Your task to perform on an android device: Search for "macbook" on walmart.com, select the first entry, add it to the cart, then select checkout. Image 0: 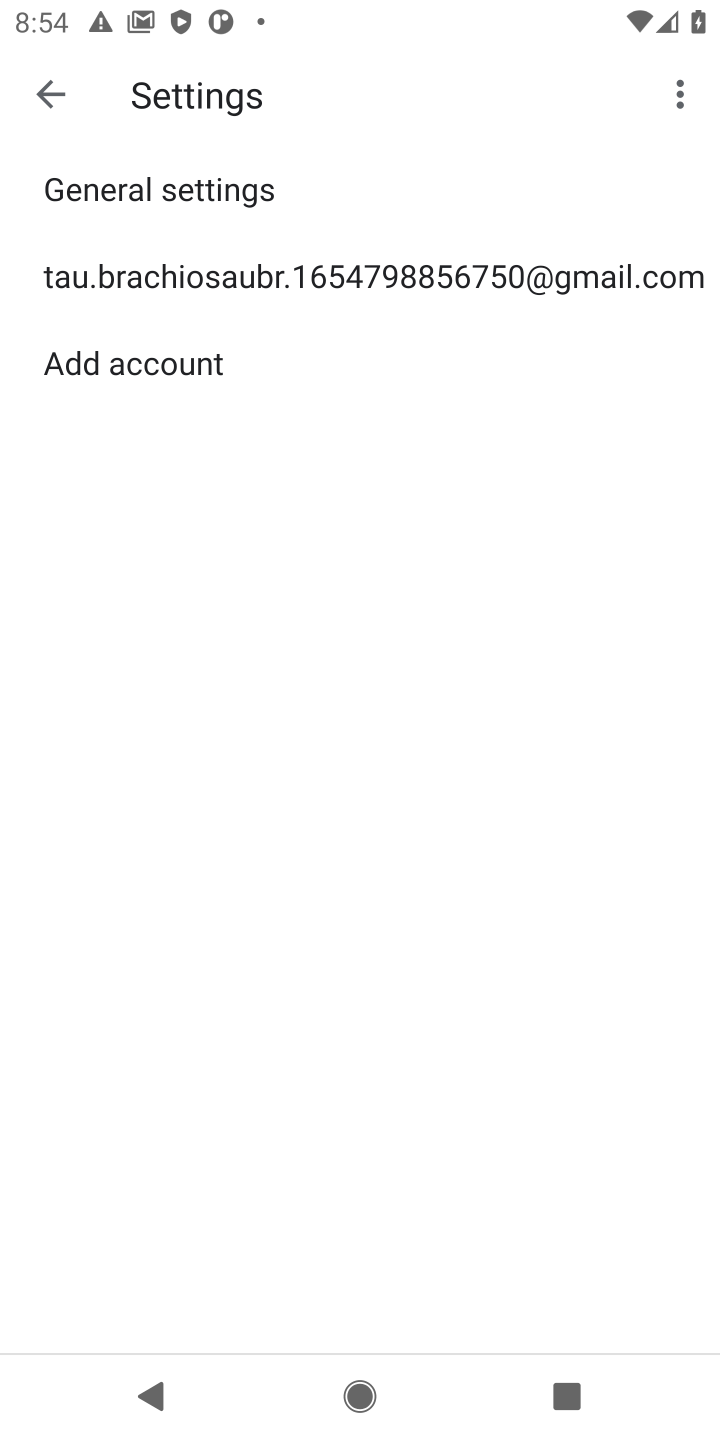
Step 0: press home button
Your task to perform on an android device: Search for "macbook" on walmart.com, select the first entry, add it to the cart, then select checkout. Image 1: 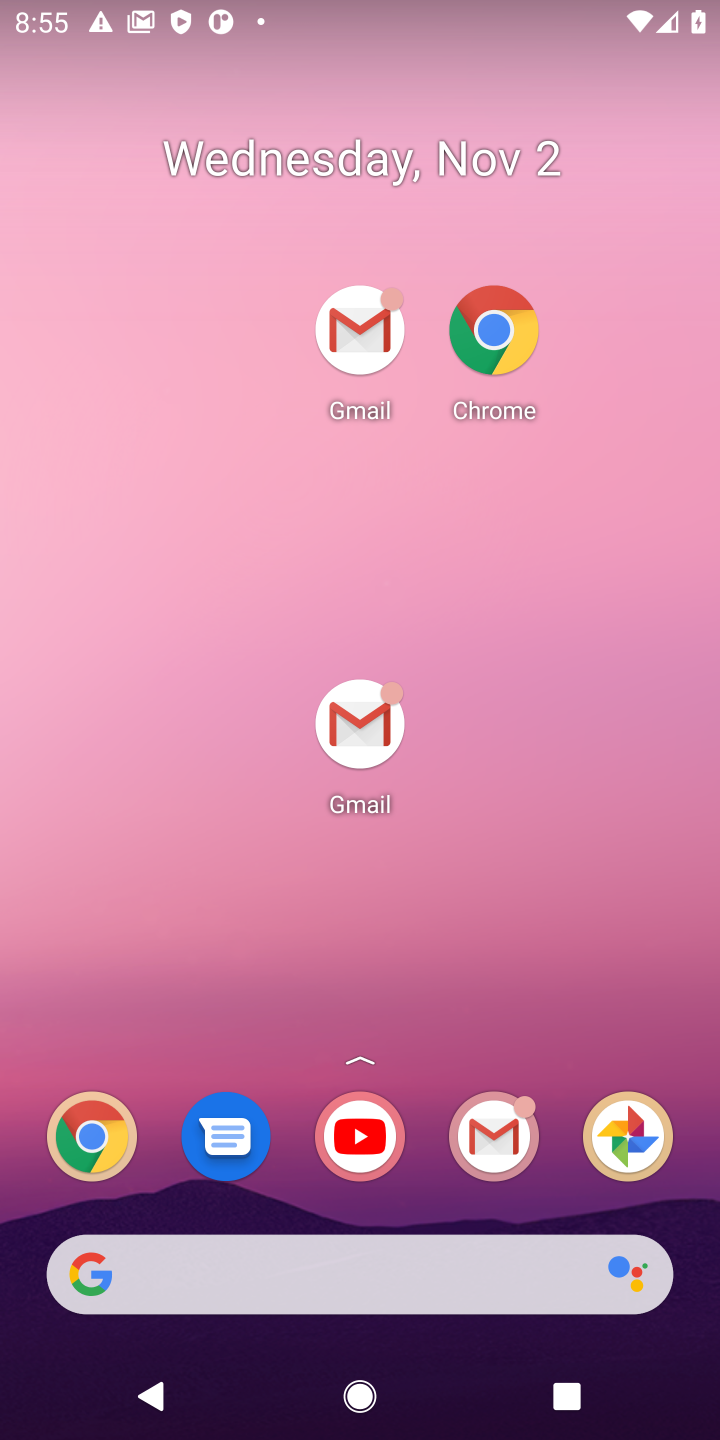
Step 1: drag from (323, 1093) to (342, 136)
Your task to perform on an android device: Search for "macbook" on walmart.com, select the first entry, add it to the cart, then select checkout. Image 2: 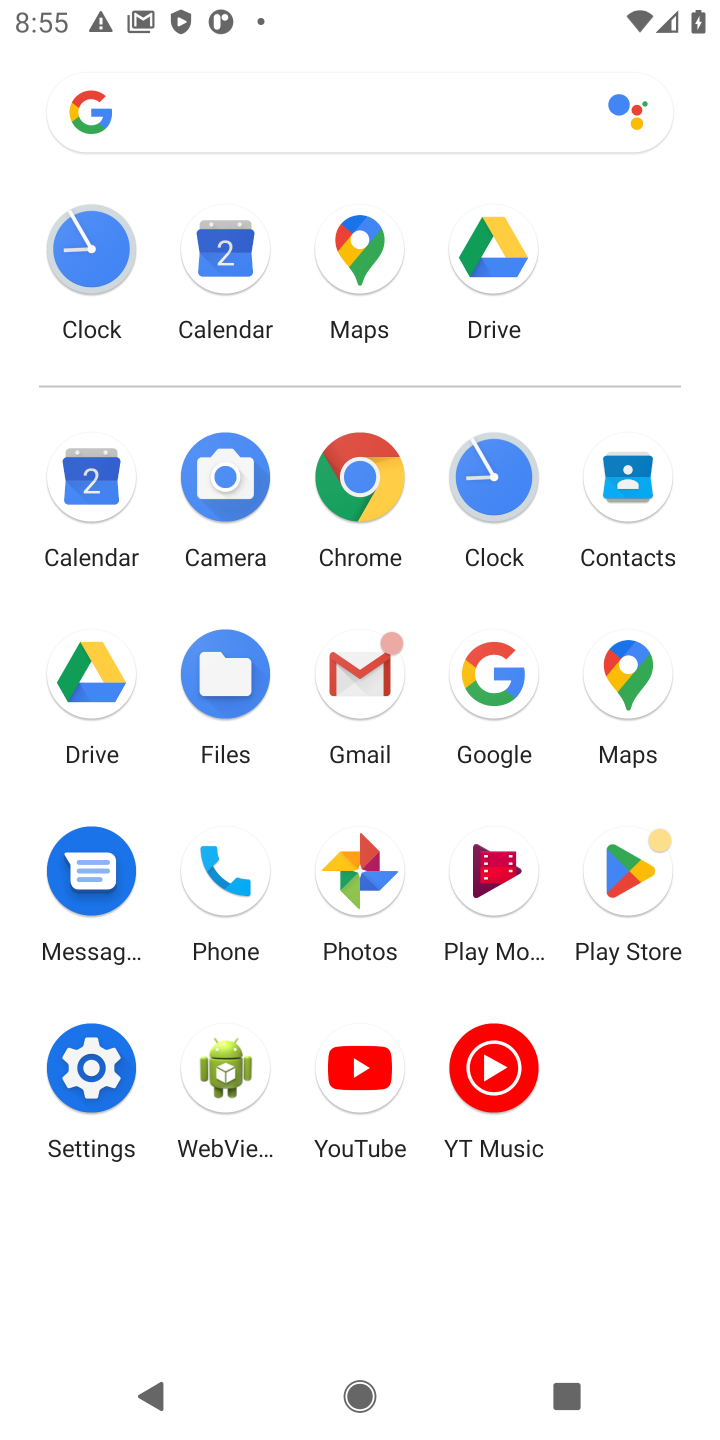
Step 2: click (487, 653)
Your task to perform on an android device: Search for "macbook" on walmart.com, select the first entry, add it to the cart, then select checkout. Image 3: 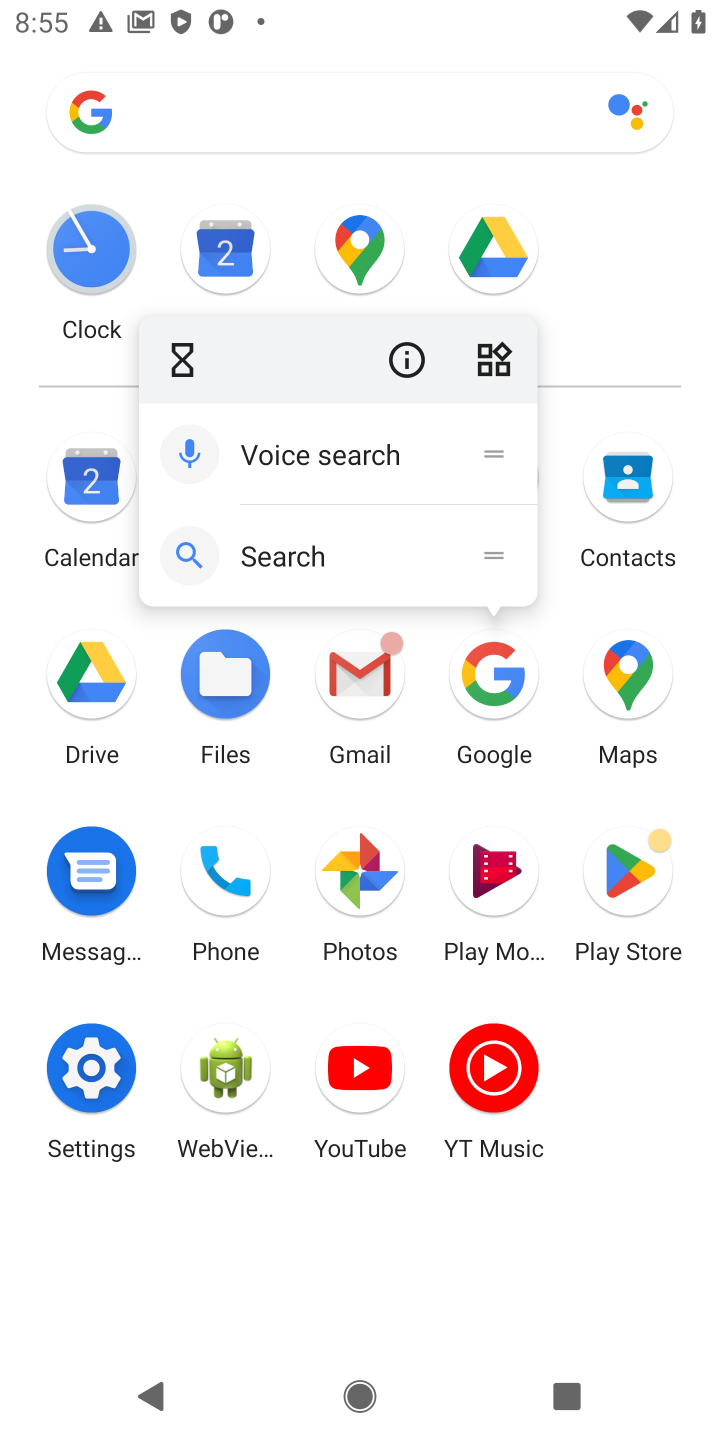
Step 3: click (487, 653)
Your task to perform on an android device: Search for "macbook" on walmart.com, select the first entry, add it to the cart, then select checkout. Image 4: 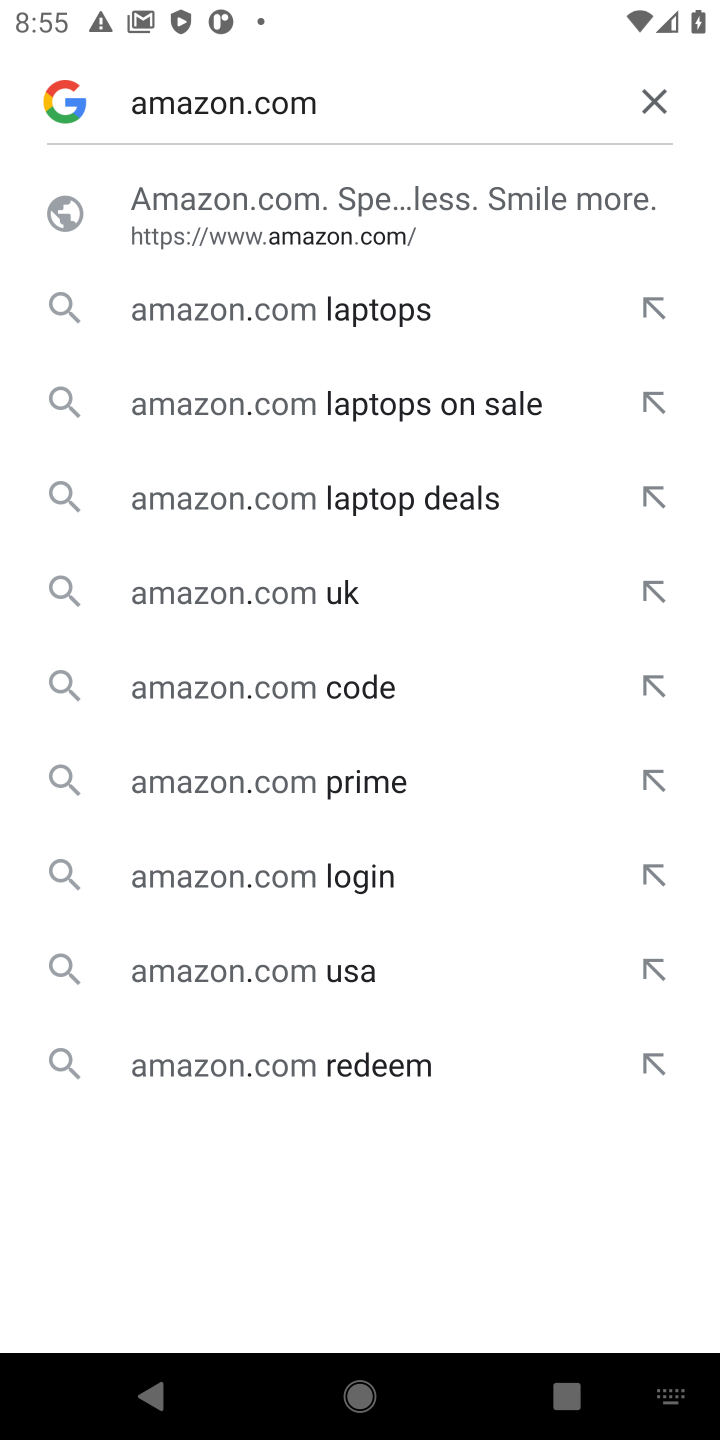
Step 4: click (638, 96)
Your task to perform on an android device: Search for "macbook" on walmart.com, select the first entry, add it to the cart, then select checkout. Image 5: 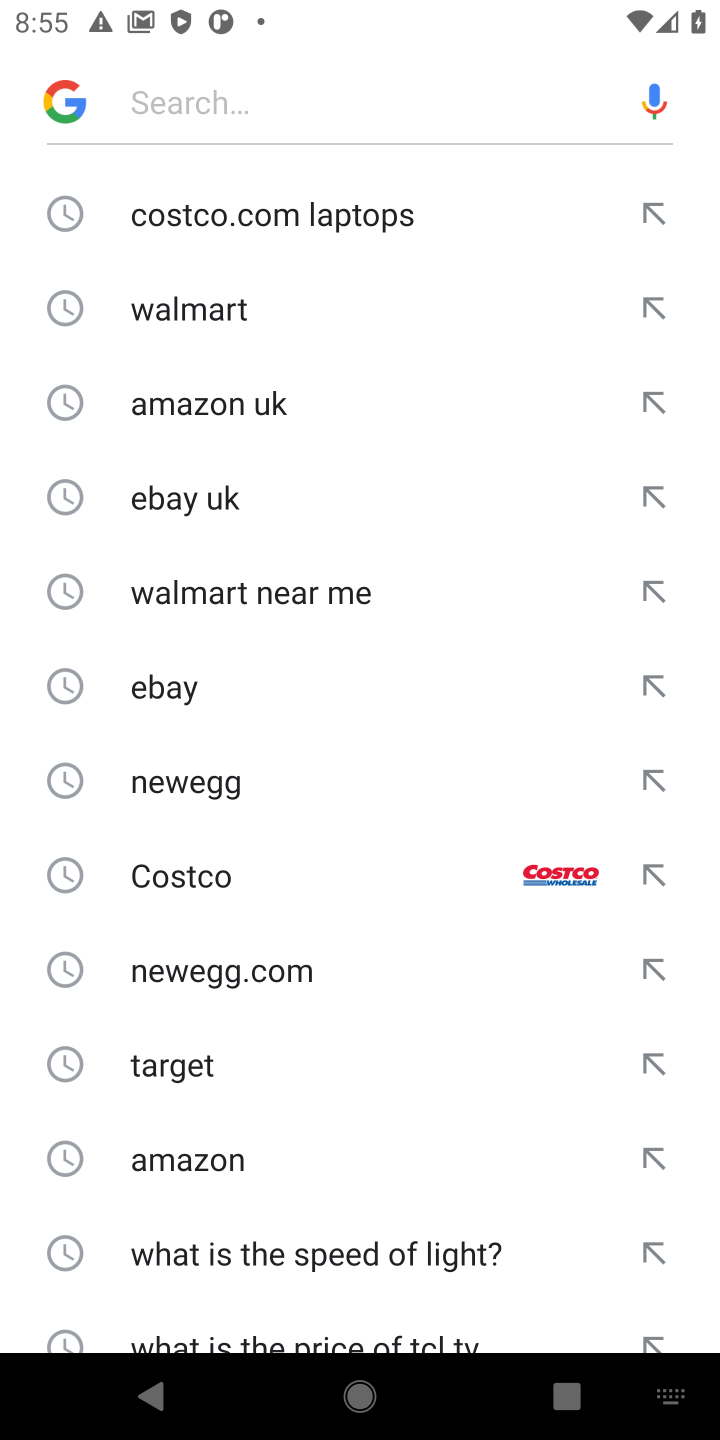
Step 5: click (325, 103)
Your task to perform on an android device: Search for "macbook" on walmart.com, select the first entry, add it to the cart, then select checkout. Image 6: 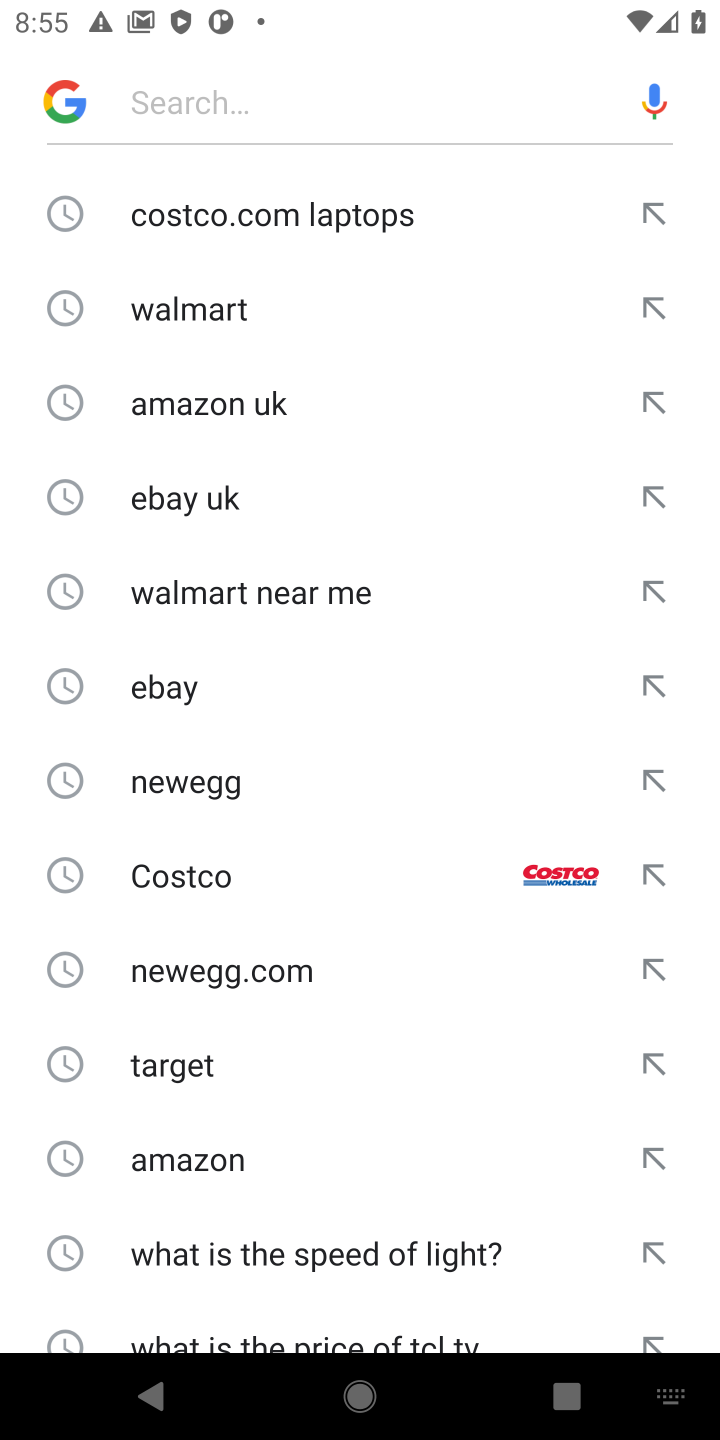
Step 6: type "walmart.com "
Your task to perform on an android device: Search for "macbook" on walmart.com, select the first entry, add it to the cart, then select checkout. Image 7: 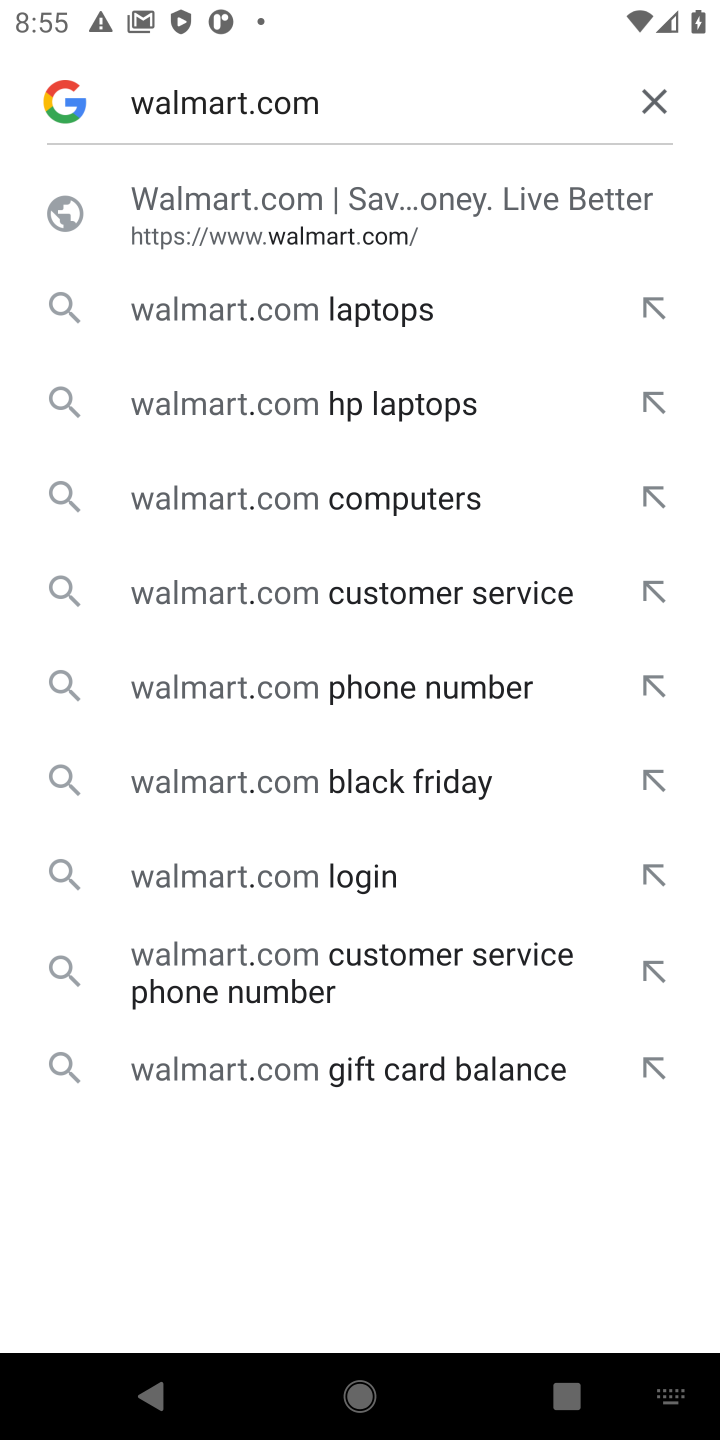
Step 7: click (255, 220)
Your task to perform on an android device: Search for "macbook" on walmart.com, select the first entry, add it to the cart, then select checkout. Image 8: 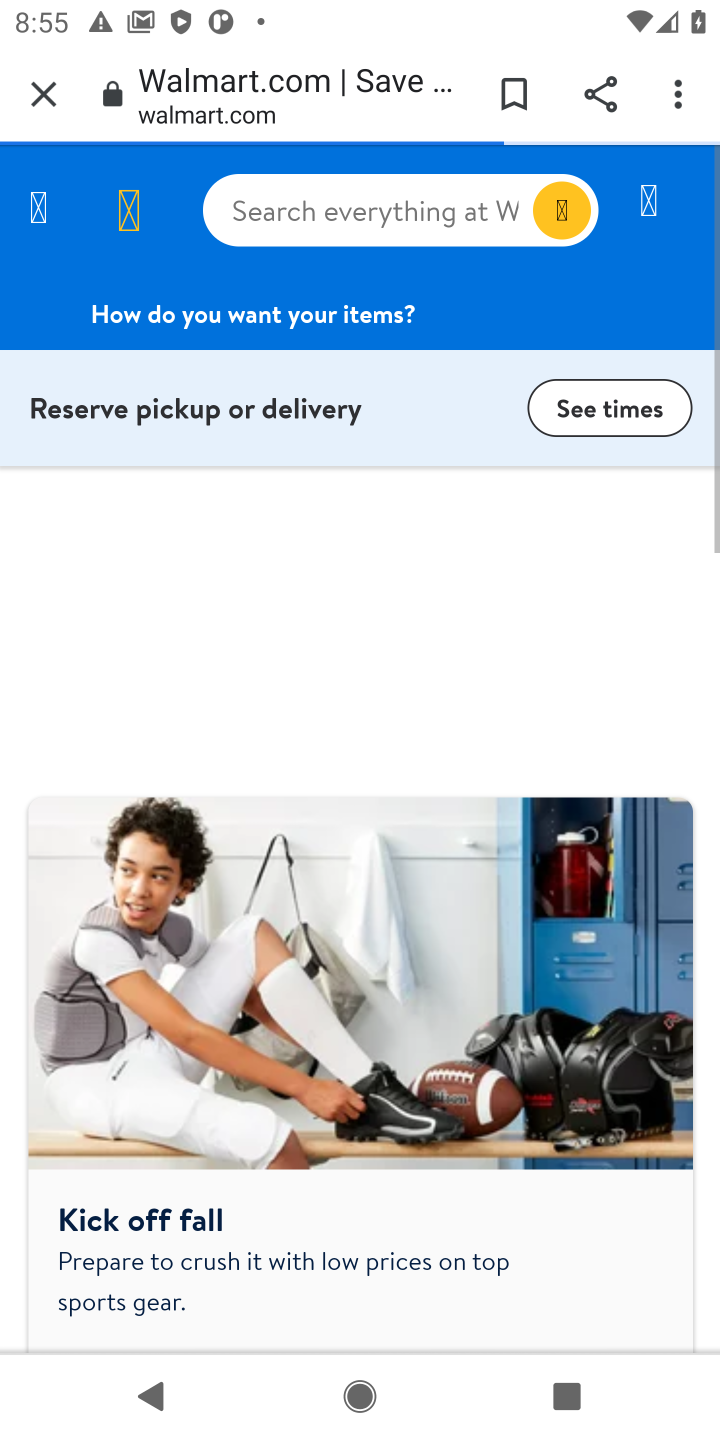
Step 8: click (255, 217)
Your task to perform on an android device: Search for "macbook" on walmart.com, select the first entry, add it to the cart, then select checkout. Image 9: 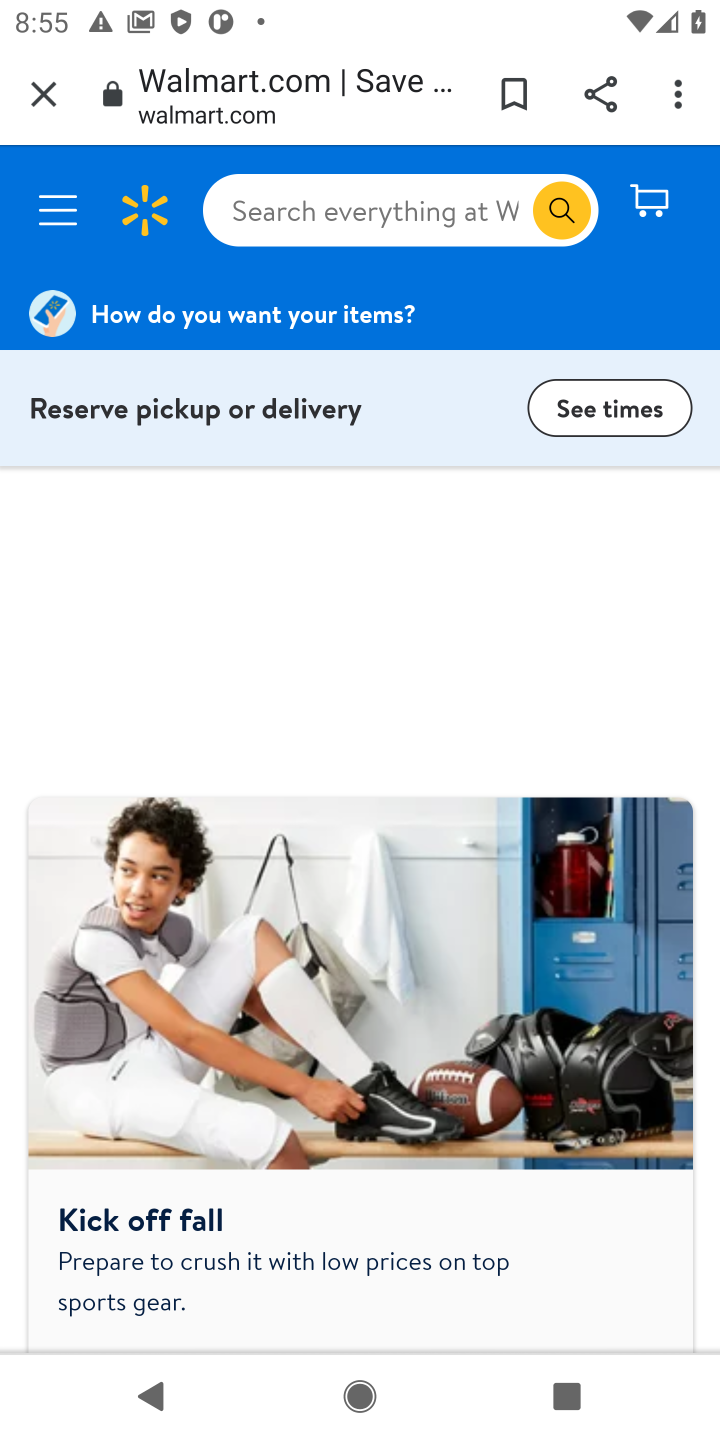
Step 9: click (375, 211)
Your task to perform on an android device: Search for "macbook" on walmart.com, select the first entry, add it to the cart, then select checkout. Image 10: 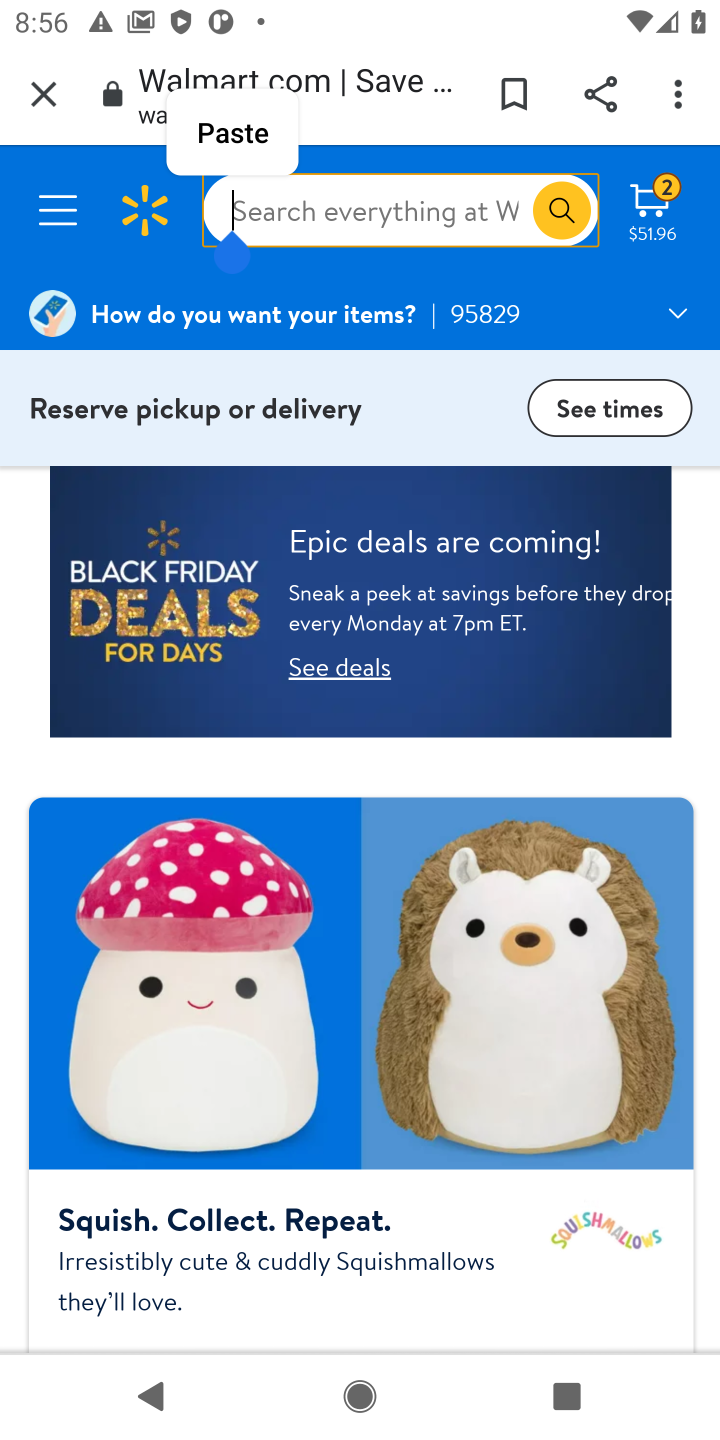
Step 10: click (385, 193)
Your task to perform on an android device: Search for "macbook" on walmart.com, select the first entry, add it to the cart, then select checkout. Image 11: 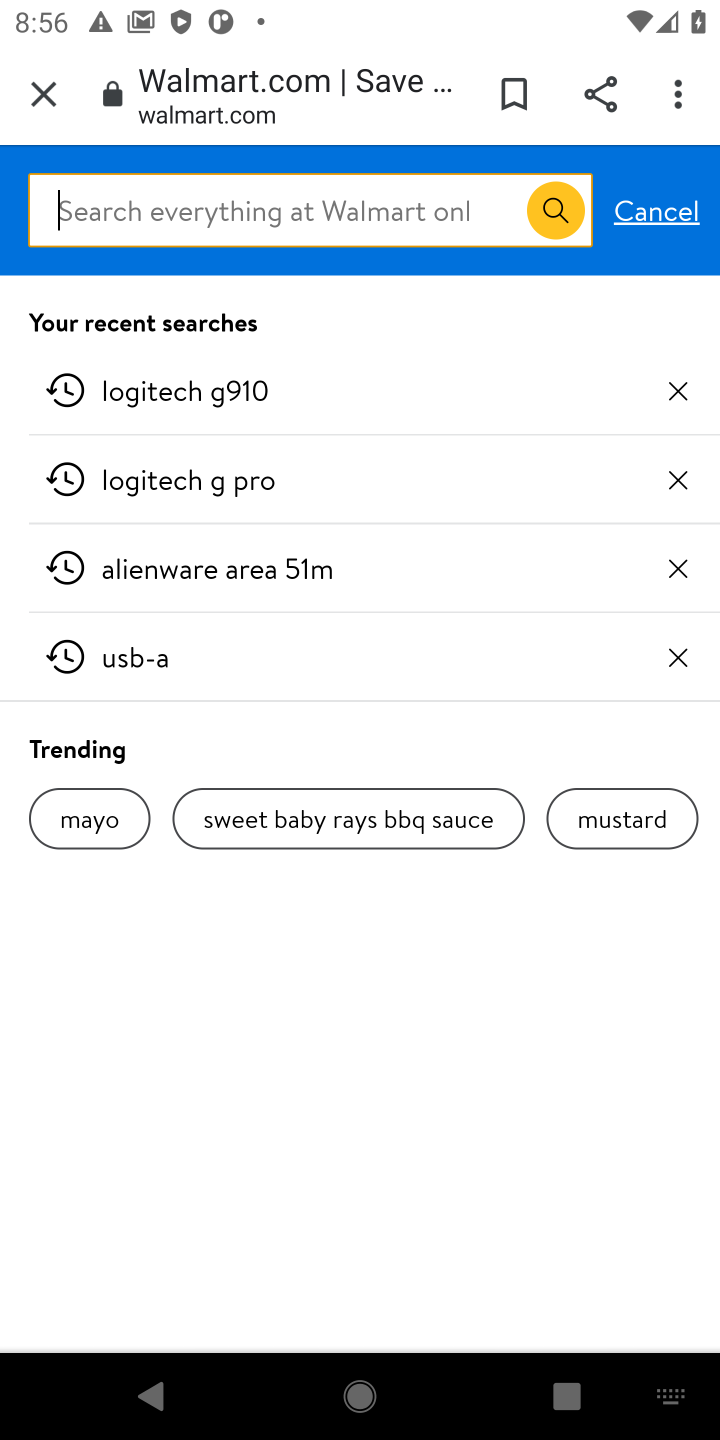
Step 11: type "macbook "
Your task to perform on an android device: Search for "macbook" on walmart.com, select the first entry, add it to the cart, then select checkout. Image 12: 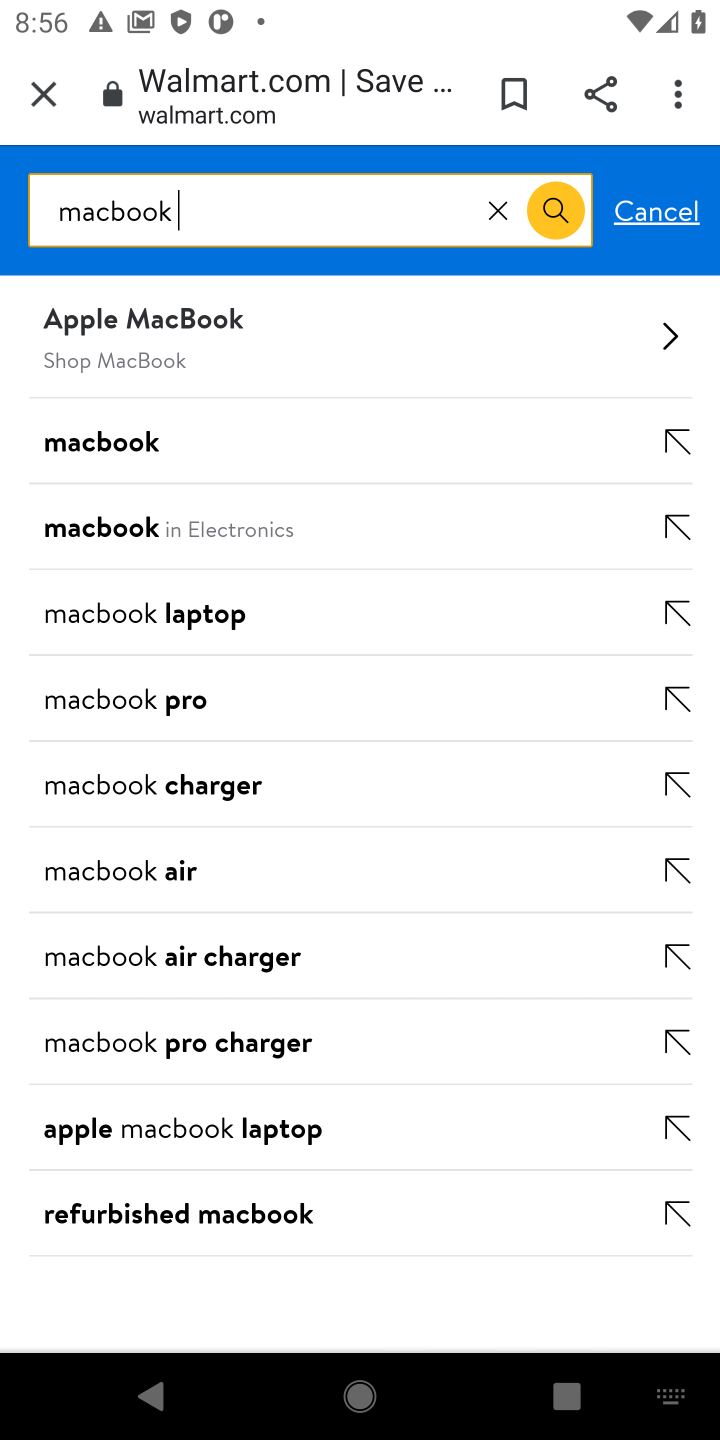
Step 12: click (83, 437)
Your task to perform on an android device: Search for "macbook" on walmart.com, select the first entry, add it to the cart, then select checkout. Image 13: 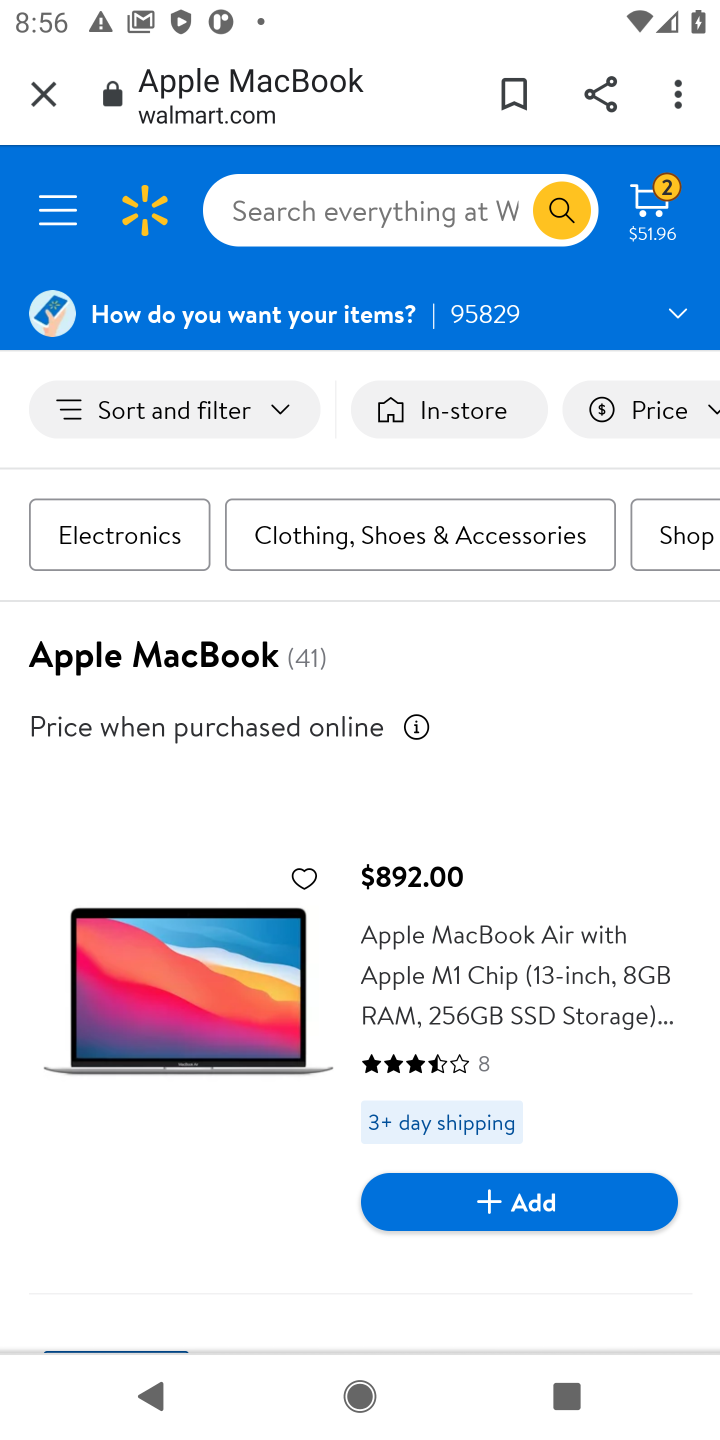
Step 13: click (594, 1173)
Your task to perform on an android device: Search for "macbook" on walmart.com, select the first entry, add it to the cart, then select checkout. Image 14: 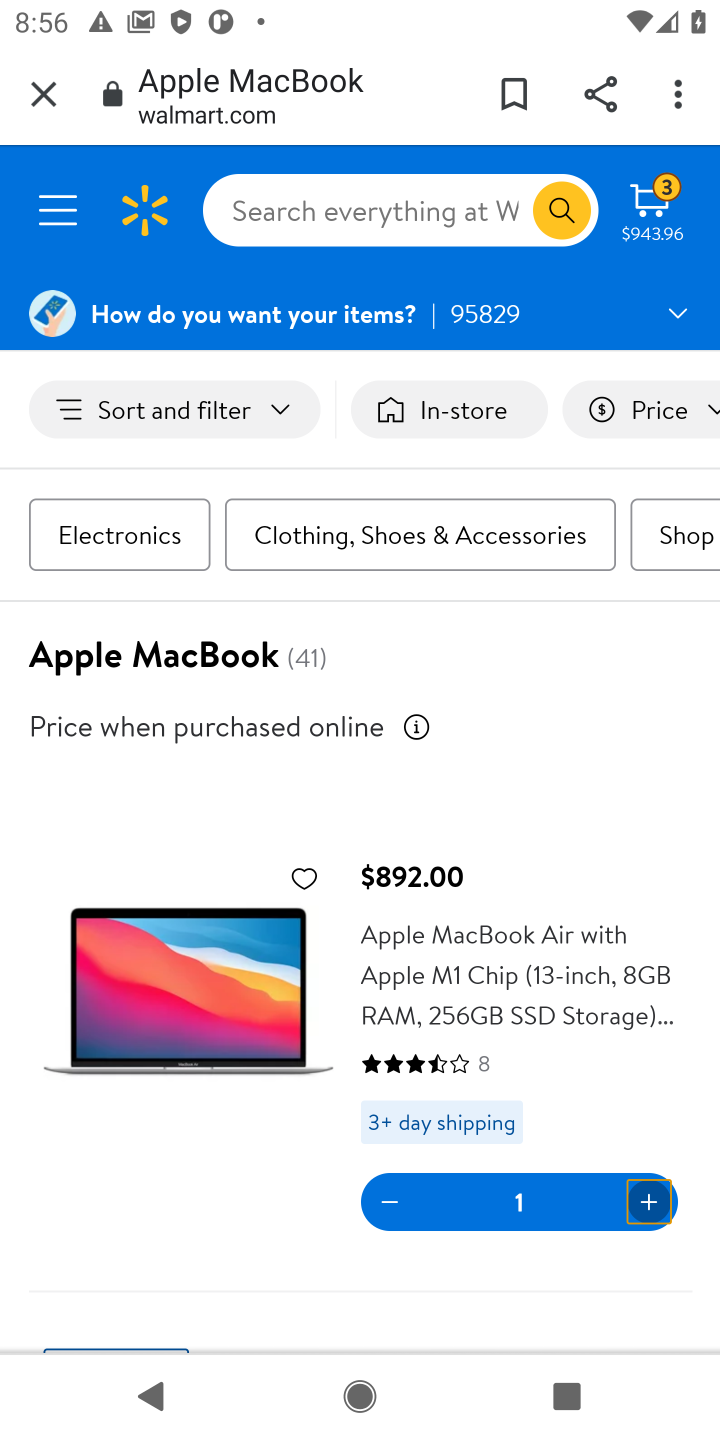
Step 14: task complete